Your task to perform on an android device: Clear the cart on costco. Add amazon basics triple a to the cart on costco Image 0: 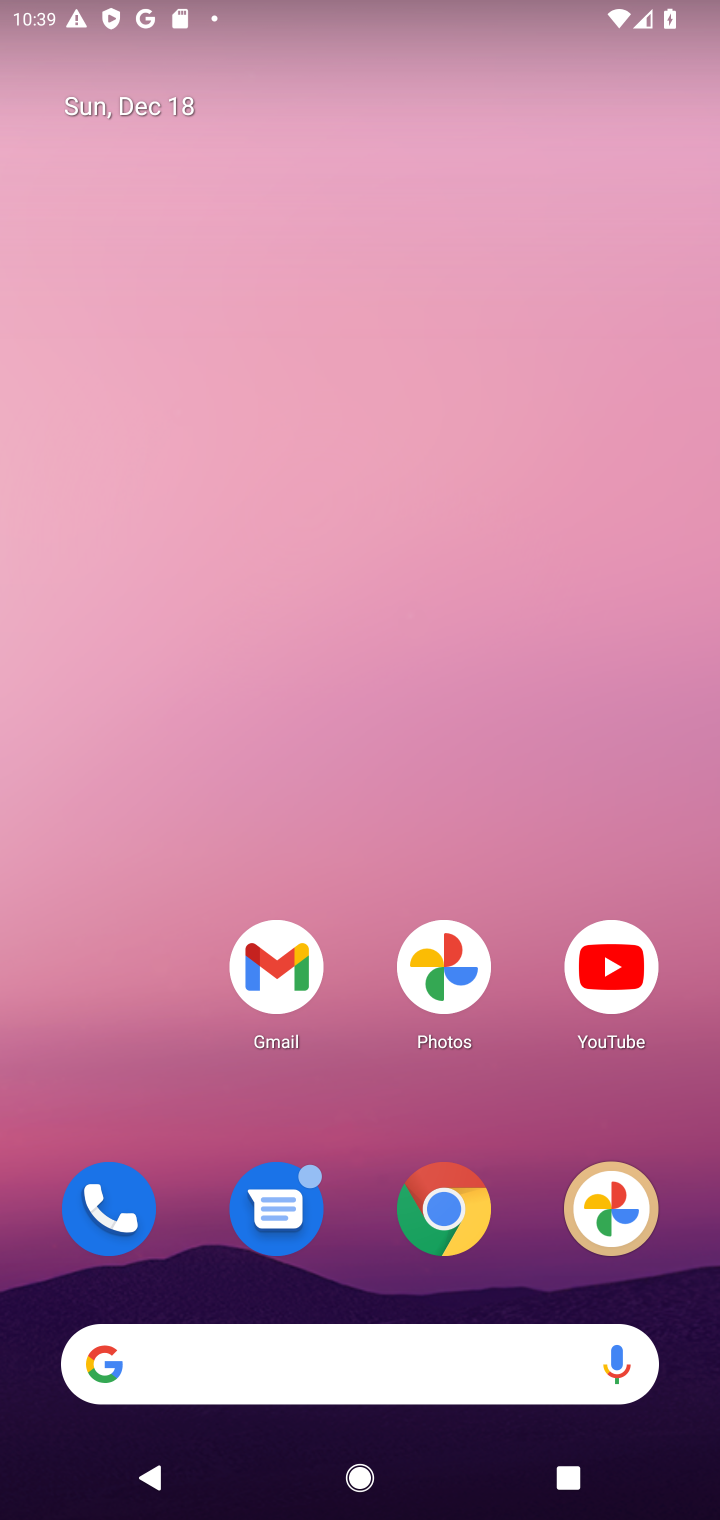
Step 0: click (458, 1207)
Your task to perform on an android device: Clear the cart on costco. Add amazon basics triple a to the cart on costco Image 1: 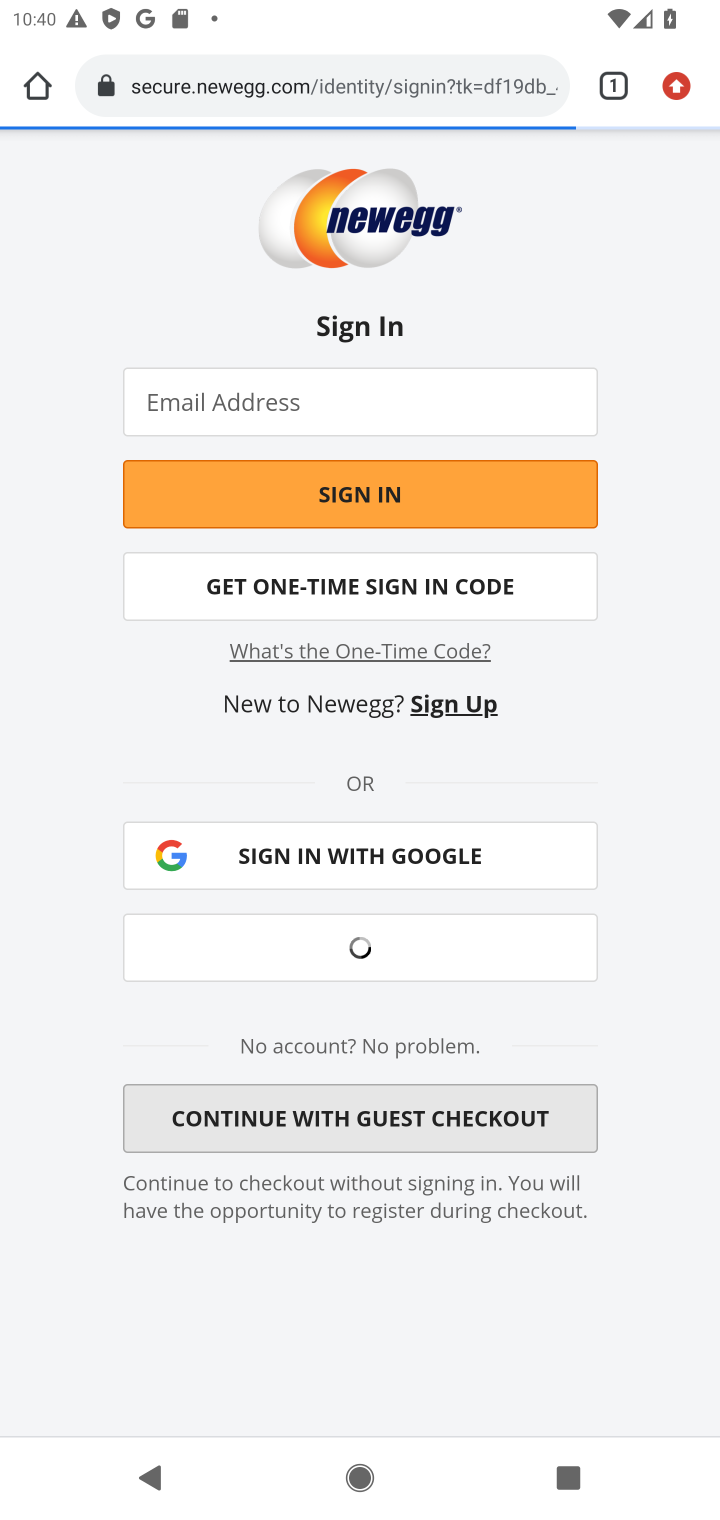
Step 1: click (324, 84)
Your task to perform on an android device: Clear the cart on costco. Add amazon basics triple a to the cart on costco Image 2: 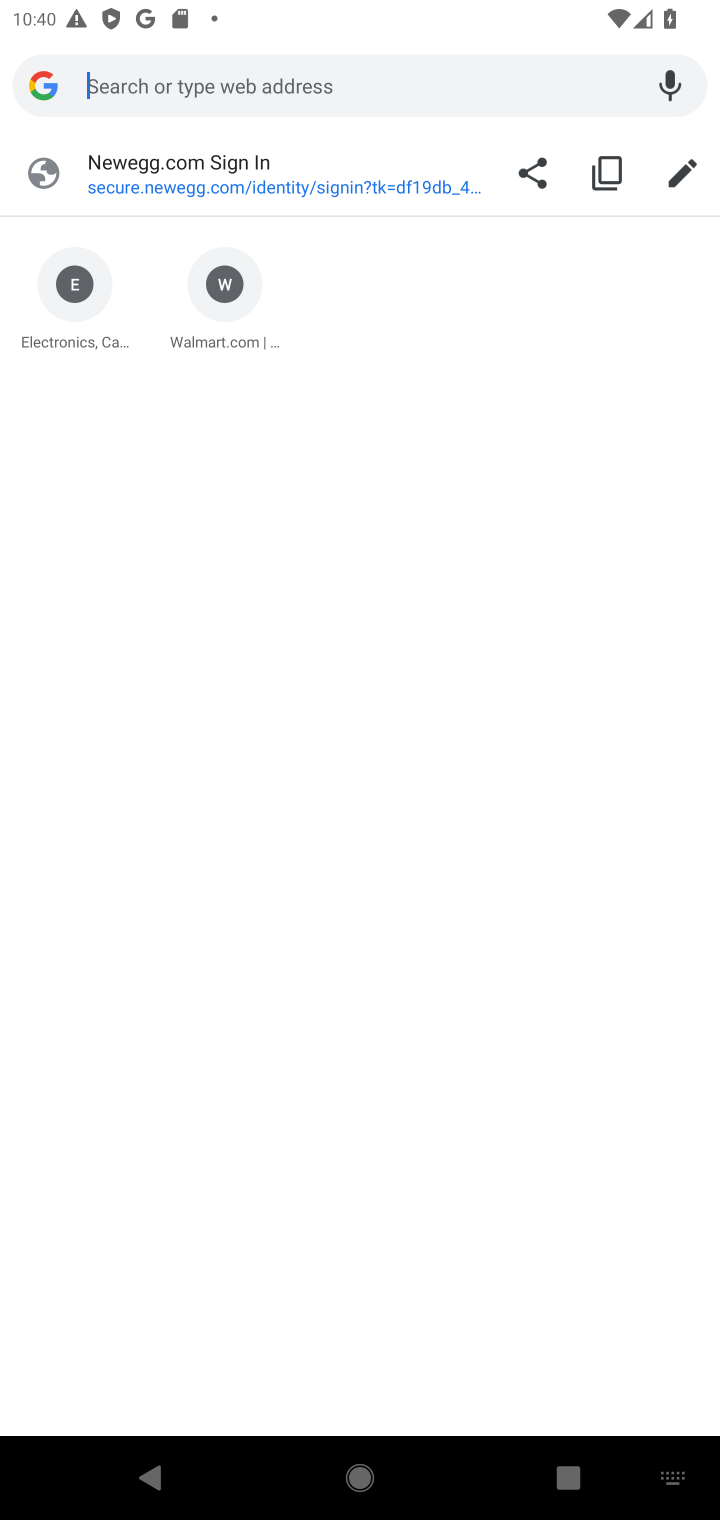
Step 2: type "COSTCO"
Your task to perform on an android device: Clear the cart on costco. Add amazon basics triple a to the cart on costco Image 3: 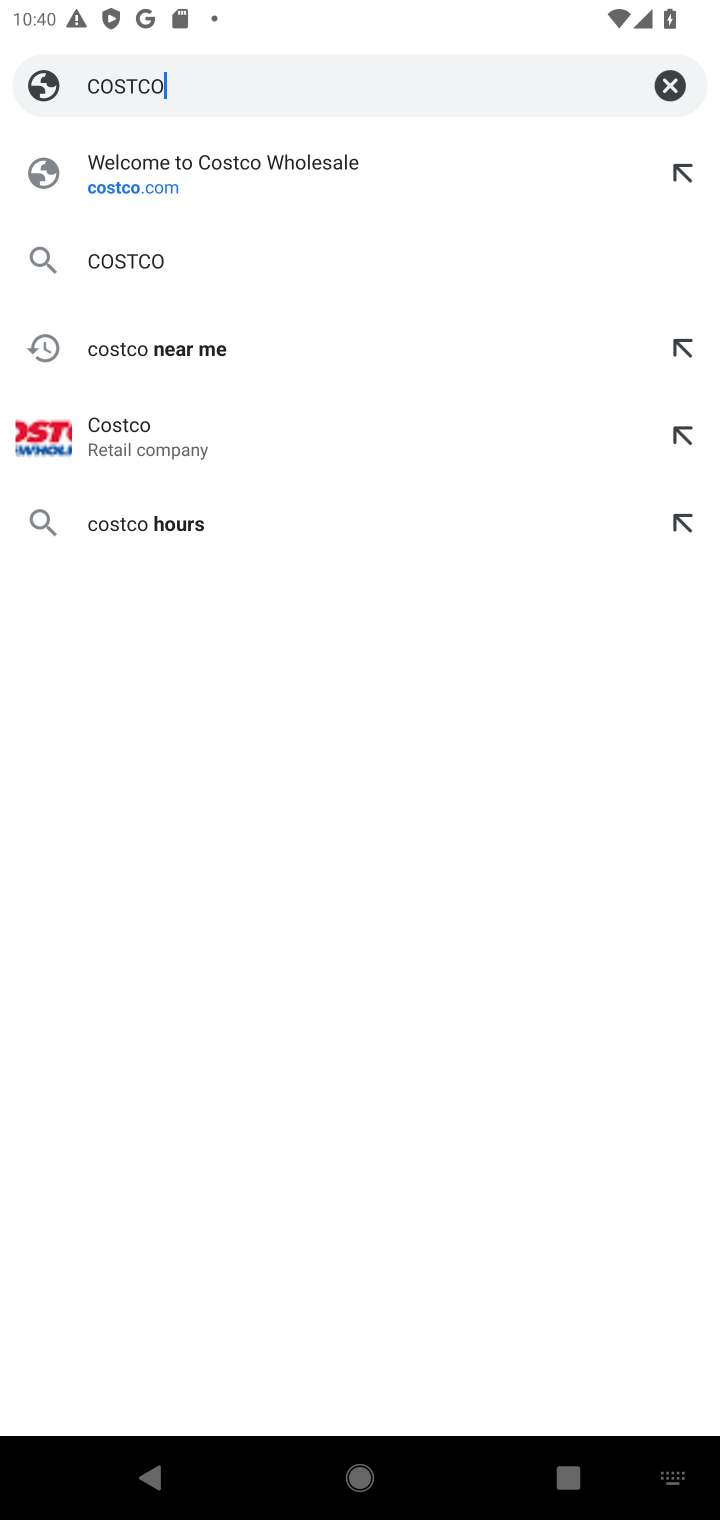
Step 3: click (224, 186)
Your task to perform on an android device: Clear the cart on costco. Add amazon basics triple a to the cart on costco Image 4: 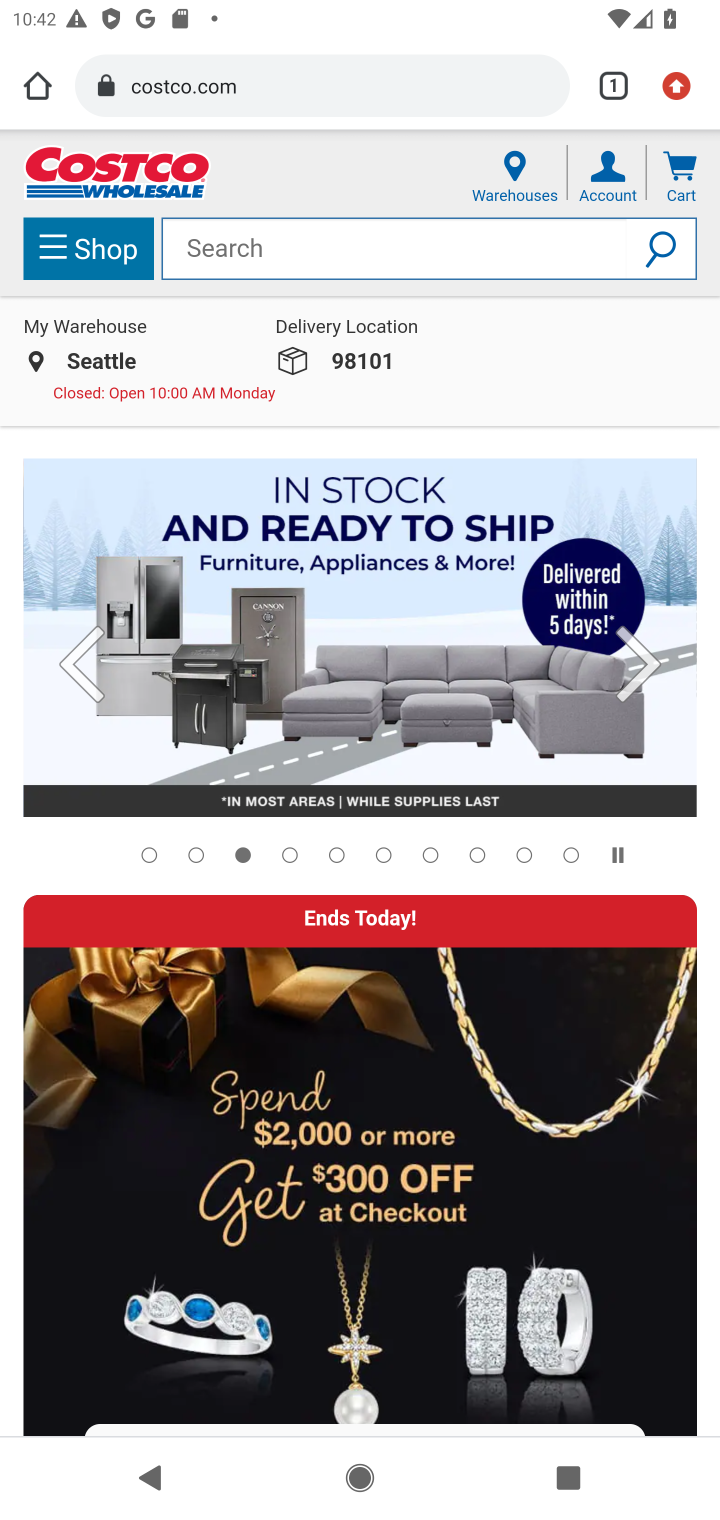
Step 4: click (526, 243)
Your task to perform on an android device: Clear the cart on costco. Add amazon basics triple a to the cart on costco Image 5: 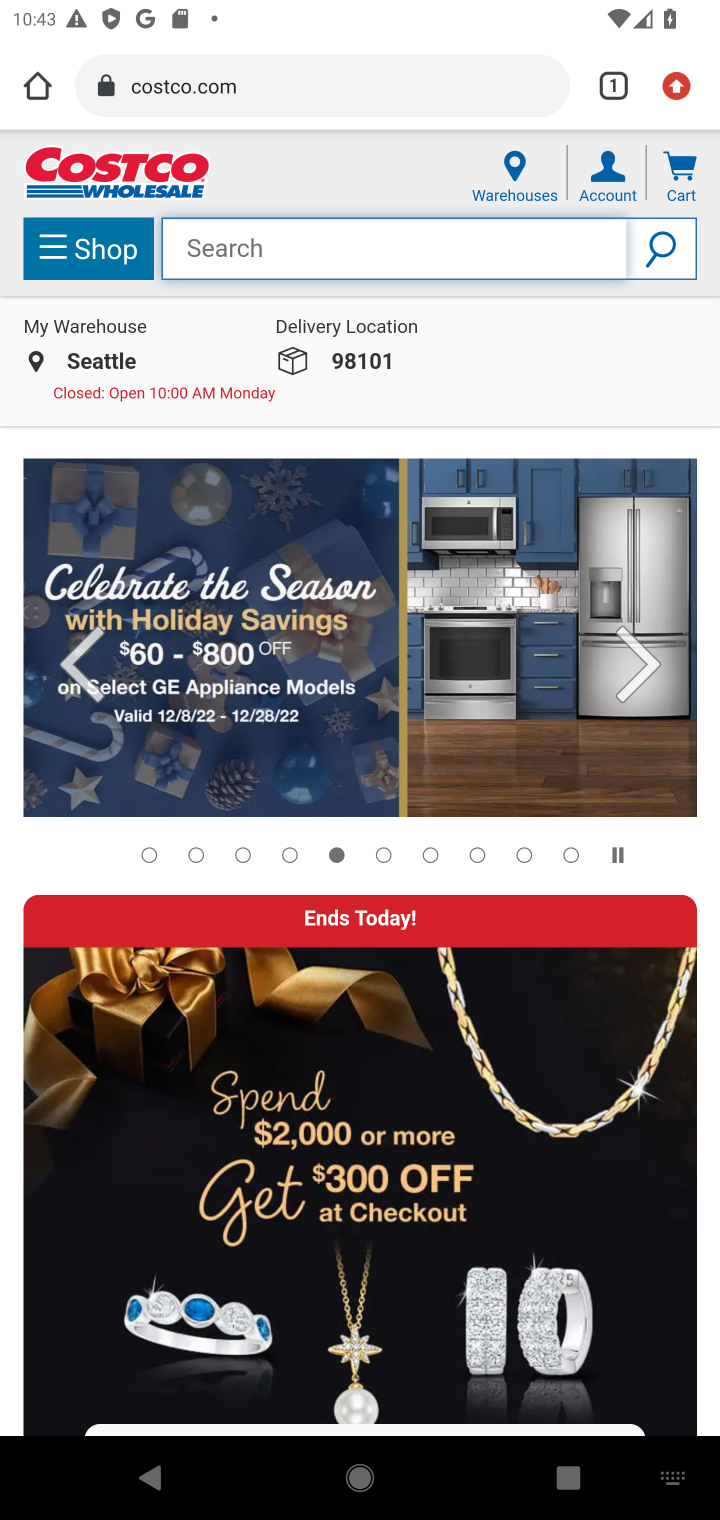
Step 5: type "AMAZON BASICS TRIPLE A"
Your task to perform on an android device: Clear the cart on costco. Add amazon basics triple a to the cart on costco Image 6: 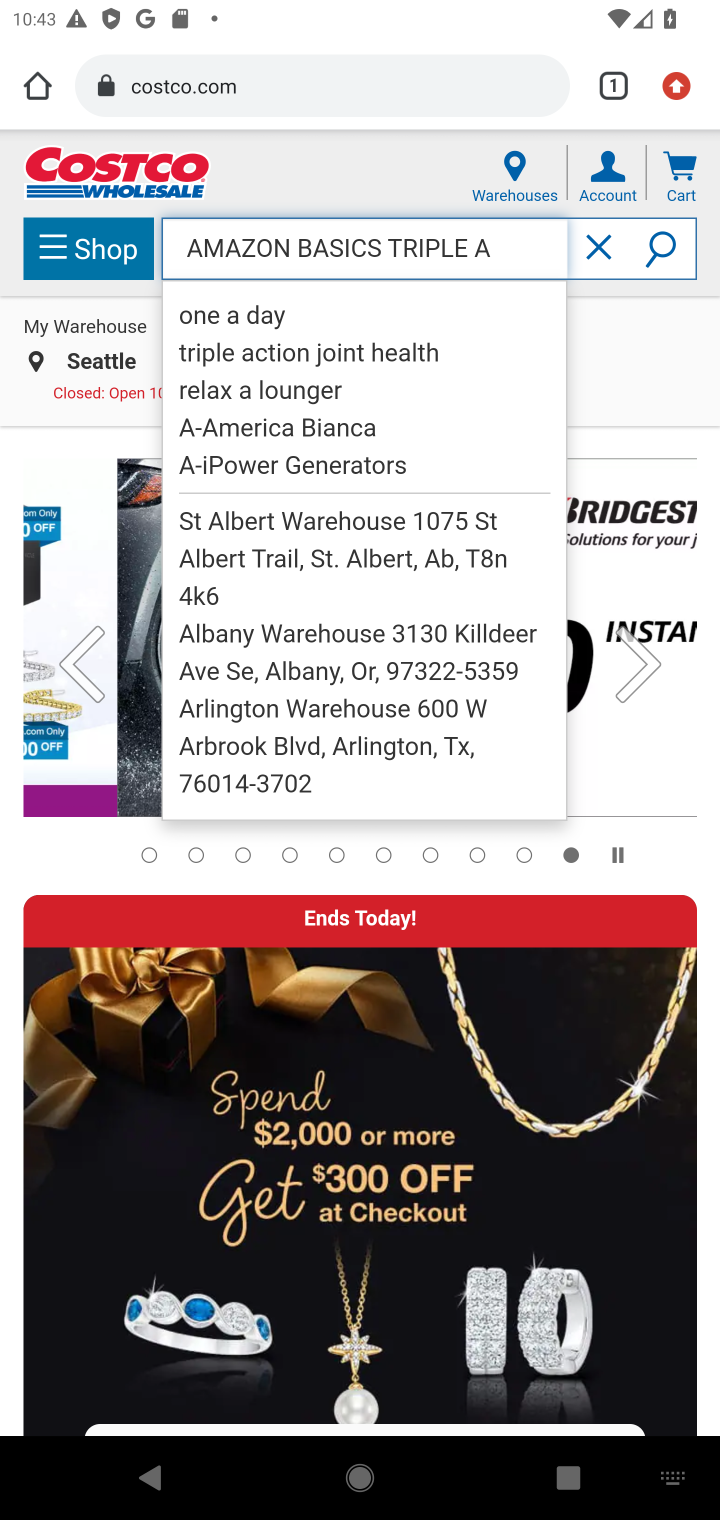
Step 6: click (343, 316)
Your task to perform on an android device: Clear the cart on costco. Add amazon basics triple a to the cart on costco Image 7: 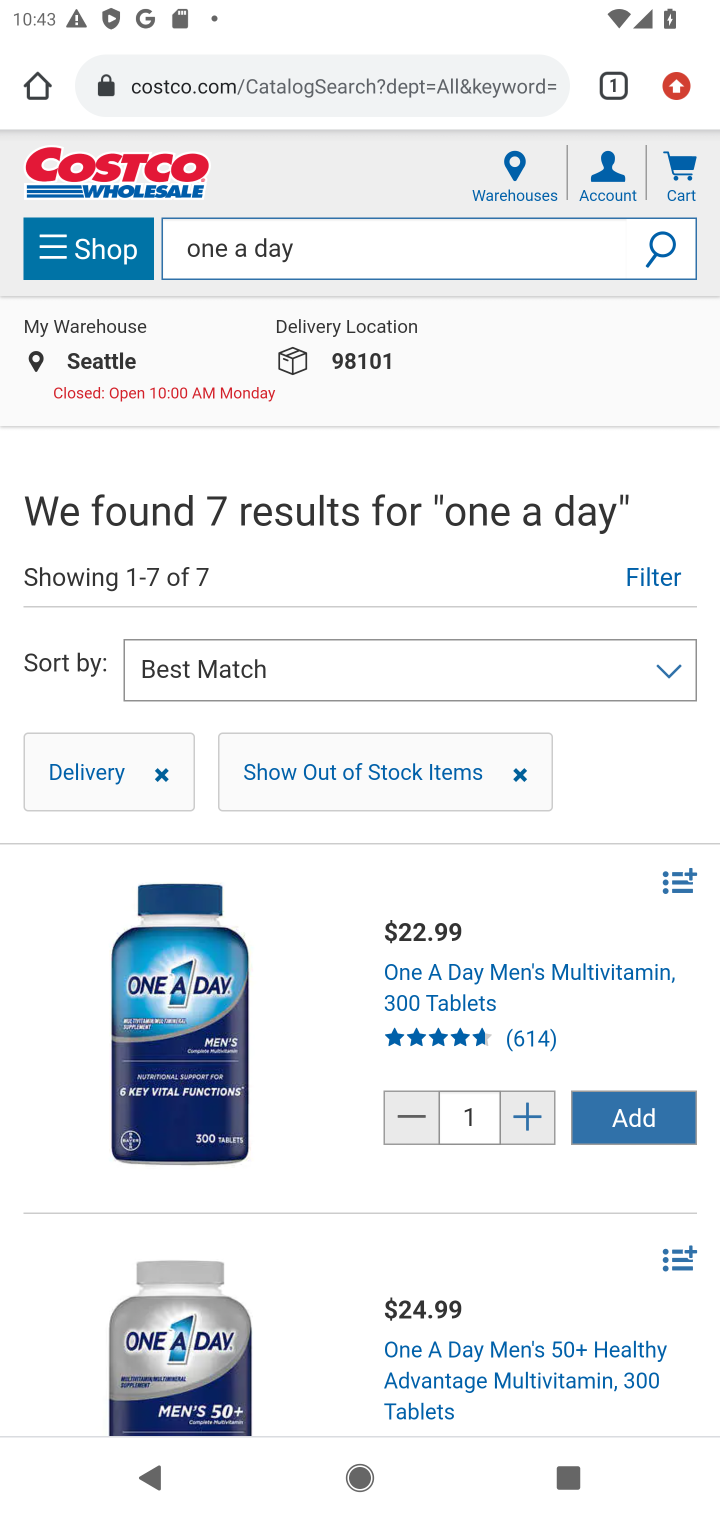
Step 7: task complete